Your task to perform on an android device: Open calendar and show me the second week of next month Image 0: 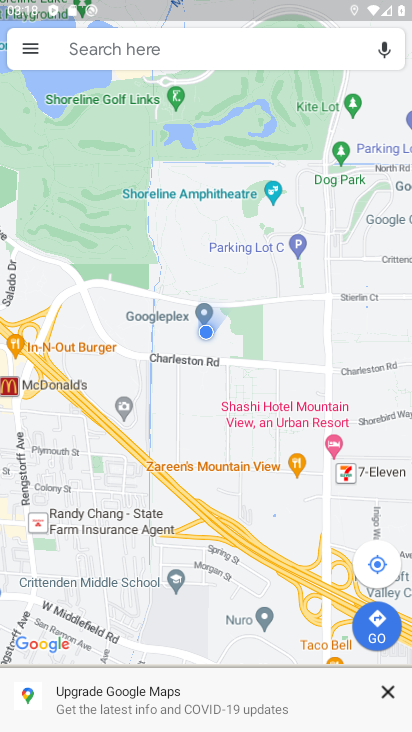
Step 0: press home button
Your task to perform on an android device: Open calendar and show me the second week of next month Image 1: 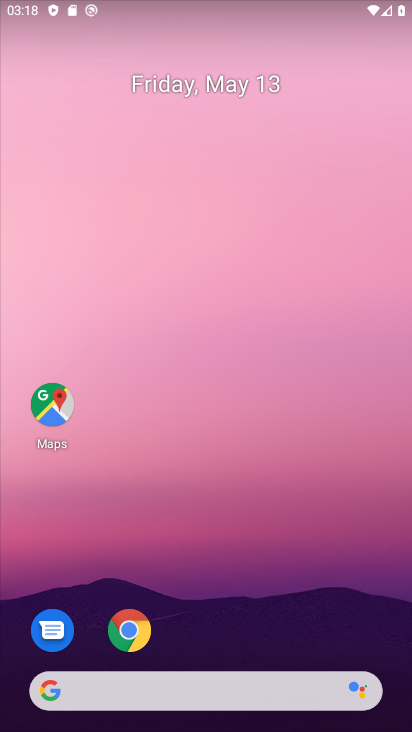
Step 1: drag from (227, 677) to (273, 34)
Your task to perform on an android device: Open calendar and show me the second week of next month Image 2: 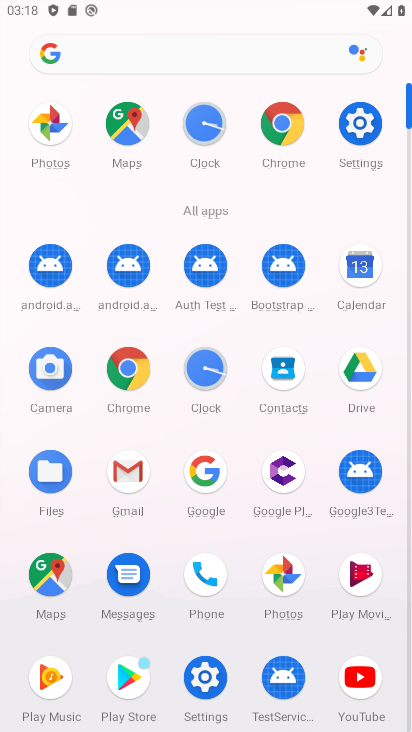
Step 2: click (341, 280)
Your task to perform on an android device: Open calendar and show me the second week of next month Image 3: 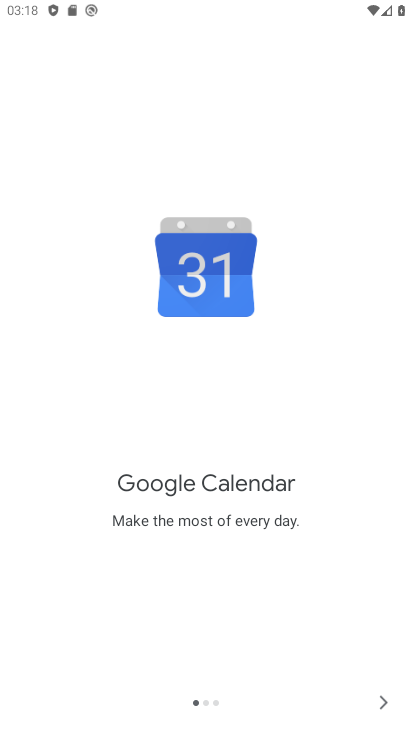
Step 3: click (387, 698)
Your task to perform on an android device: Open calendar and show me the second week of next month Image 4: 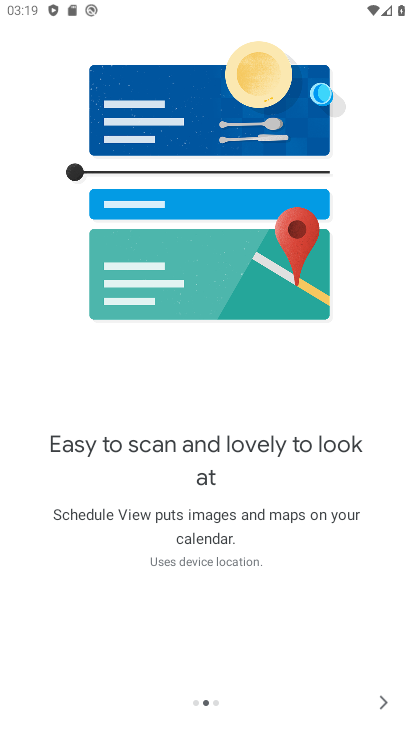
Step 4: click (364, 675)
Your task to perform on an android device: Open calendar and show me the second week of next month Image 5: 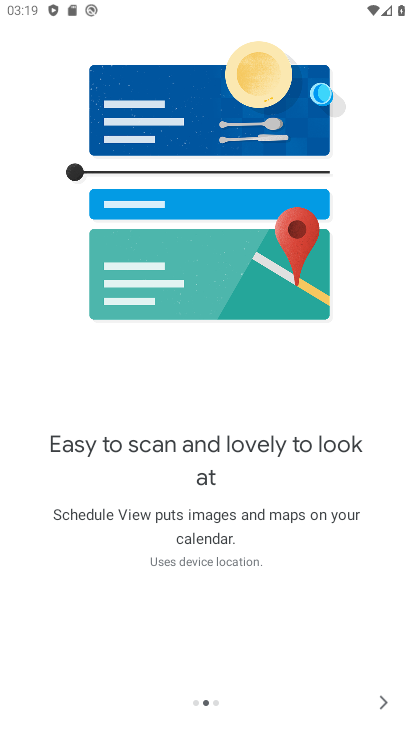
Step 5: click (390, 706)
Your task to perform on an android device: Open calendar and show me the second week of next month Image 6: 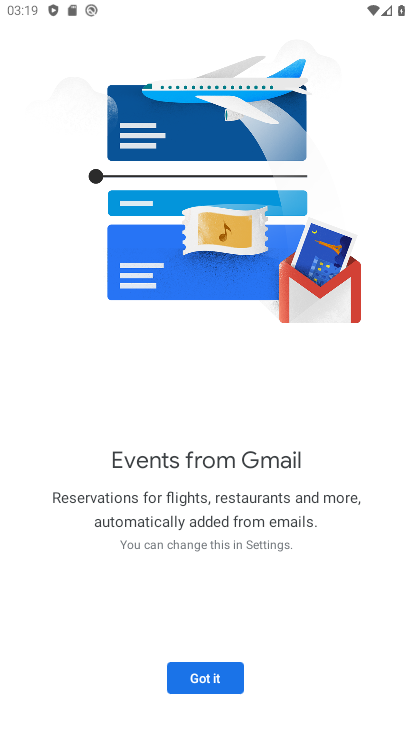
Step 6: click (231, 675)
Your task to perform on an android device: Open calendar and show me the second week of next month Image 7: 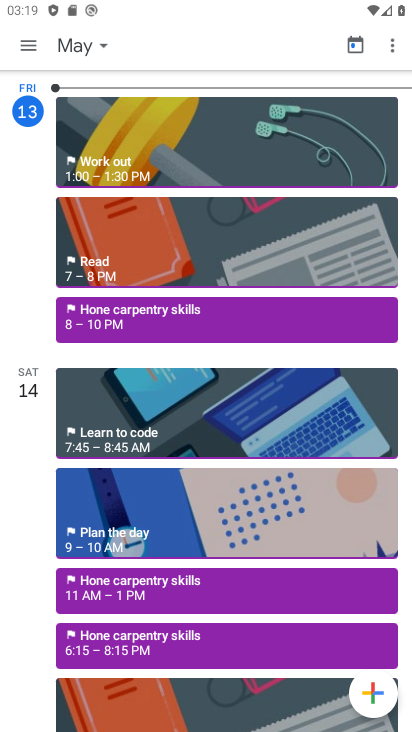
Step 7: click (29, 42)
Your task to perform on an android device: Open calendar and show me the second week of next month Image 8: 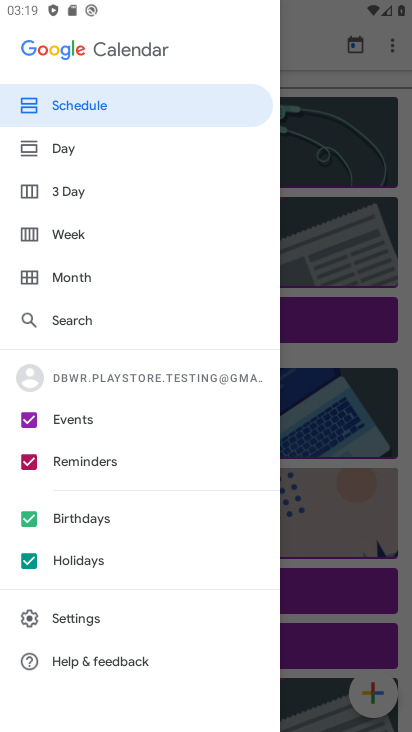
Step 8: click (85, 226)
Your task to perform on an android device: Open calendar and show me the second week of next month Image 9: 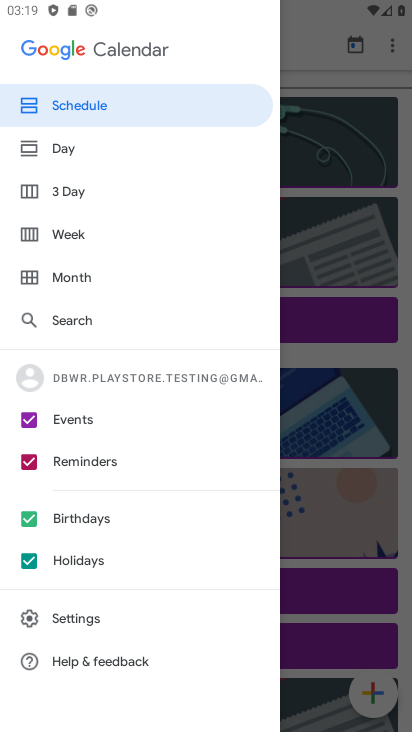
Step 9: click (62, 227)
Your task to perform on an android device: Open calendar and show me the second week of next month Image 10: 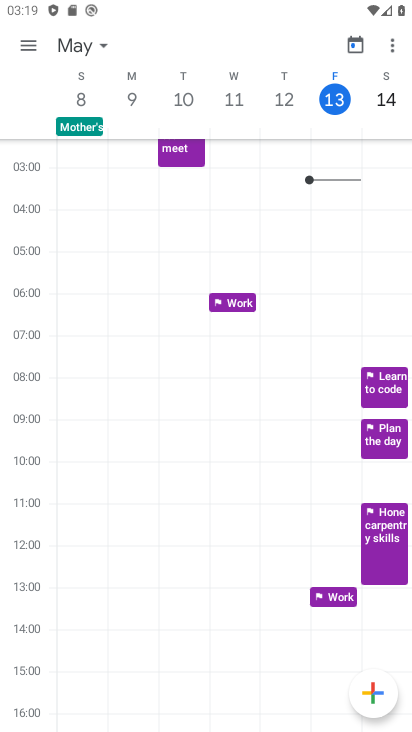
Step 10: task complete